Your task to perform on an android device: check the backup settings in the google photos Image 0: 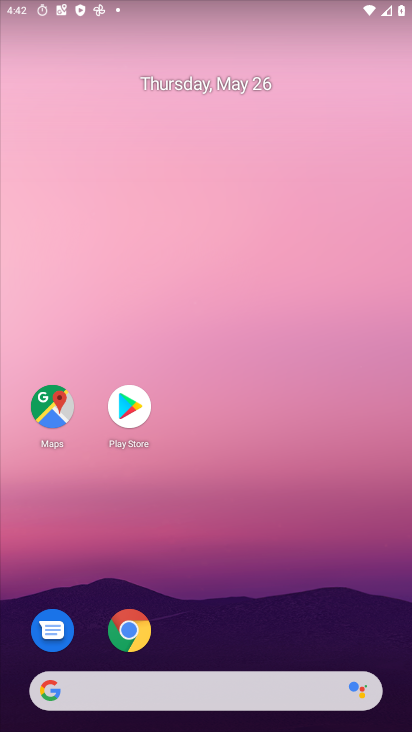
Step 0: drag from (229, 625) to (233, 129)
Your task to perform on an android device: check the backup settings in the google photos Image 1: 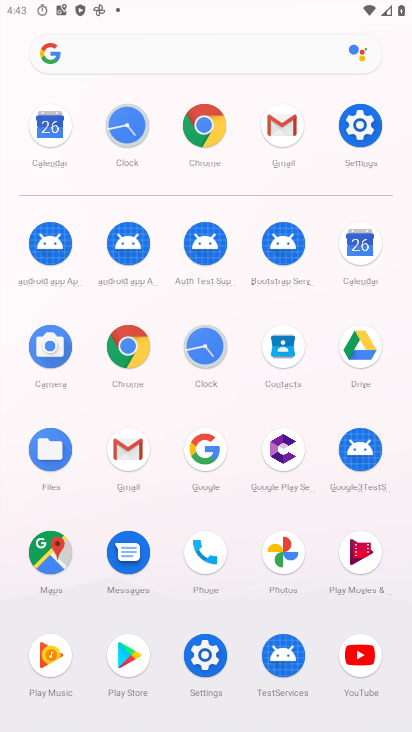
Step 1: click (291, 552)
Your task to perform on an android device: check the backup settings in the google photos Image 2: 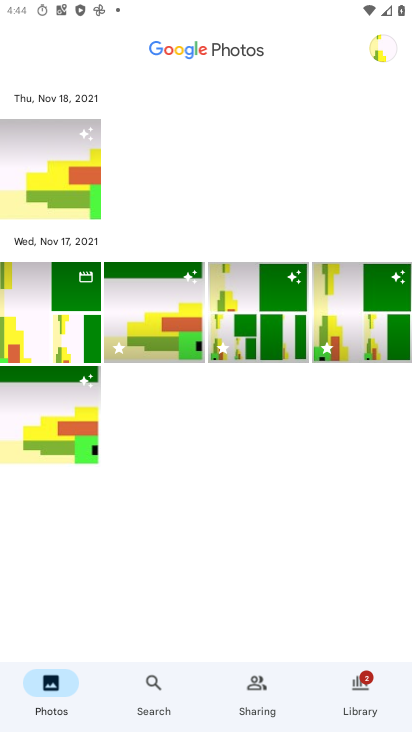
Step 2: click (386, 54)
Your task to perform on an android device: check the backup settings in the google photos Image 3: 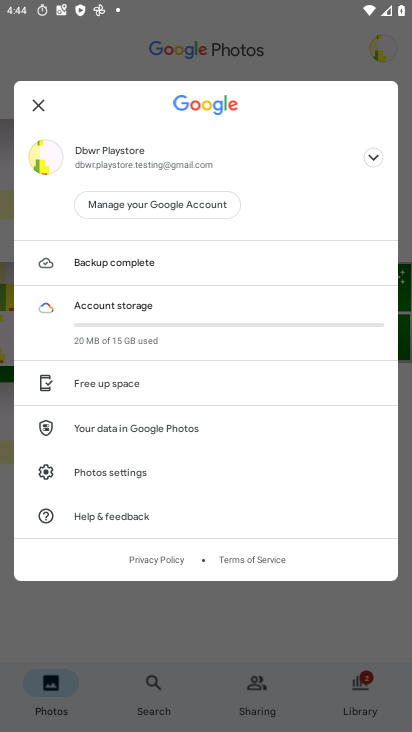
Step 3: click (302, 305)
Your task to perform on an android device: check the backup settings in the google photos Image 4: 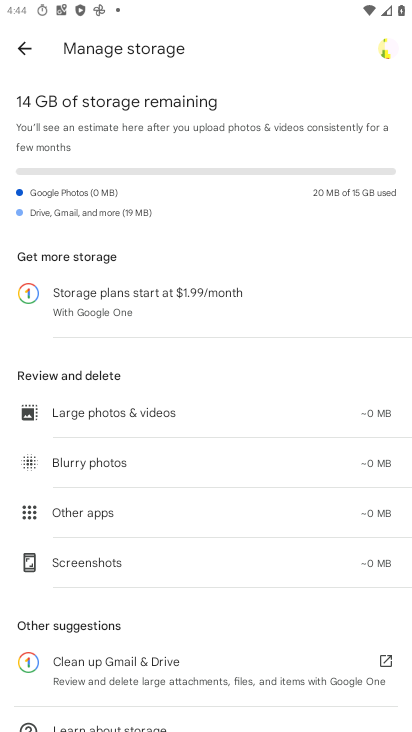
Step 4: click (21, 45)
Your task to perform on an android device: check the backup settings in the google photos Image 5: 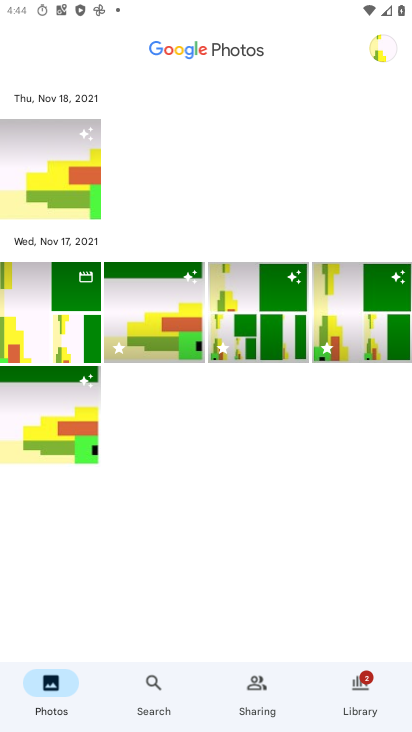
Step 5: click (383, 44)
Your task to perform on an android device: check the backup settings in the google photos Image 6: 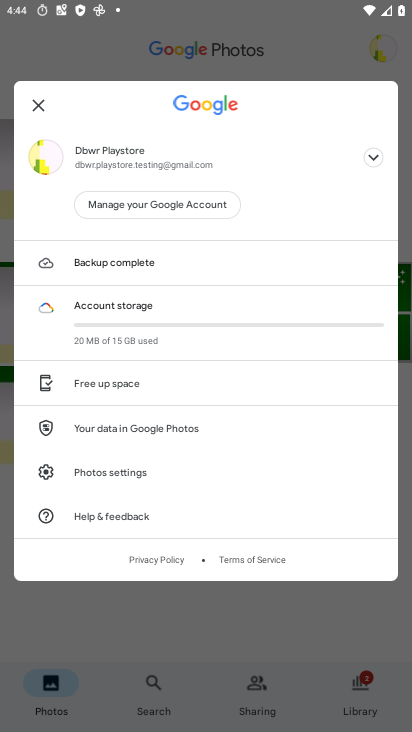
Step 6: click (376, 151)
Your task to perform on an android device: check the backup settings in the google photos Image 7: 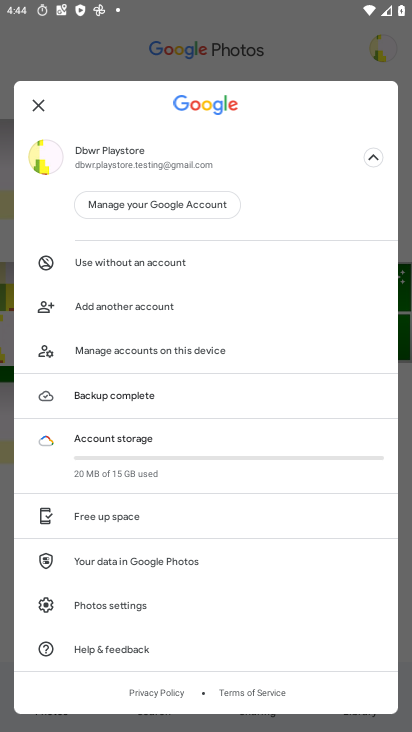
Step 7: click (134, 609)
Your task to perform on an android device: check the backup settings in the google photos Image 8: 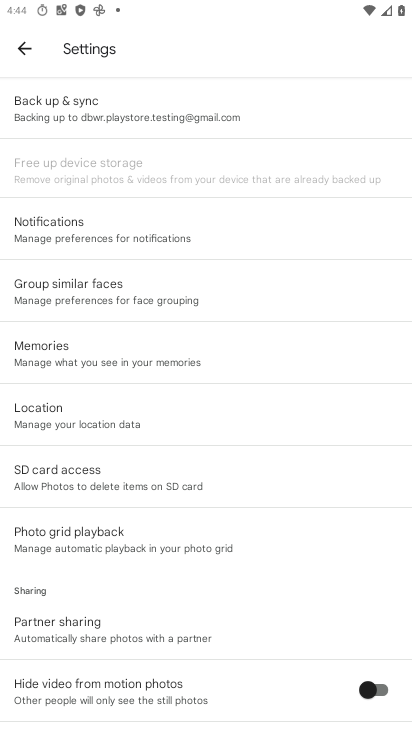
Step 8: click (121, 109)
Your task to perform on an android device: check the backup settings in the google photos Image 9: 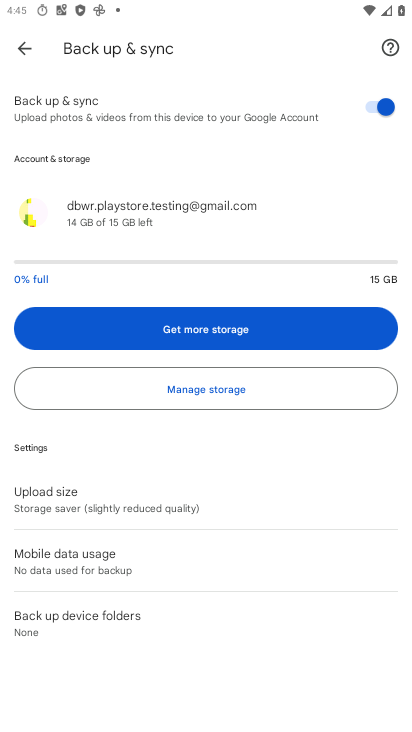
Step 9: task complete